Your task to perform on an android device: Go to Maps Image 0: 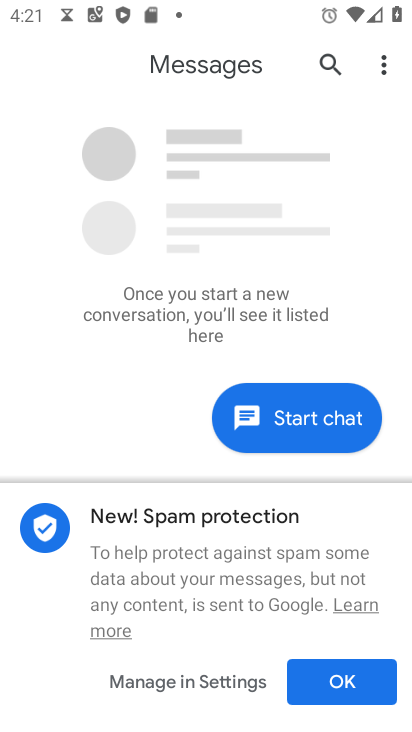
Step 0: press home button
Your task to perform on an android device: Go to Maps Image 1: 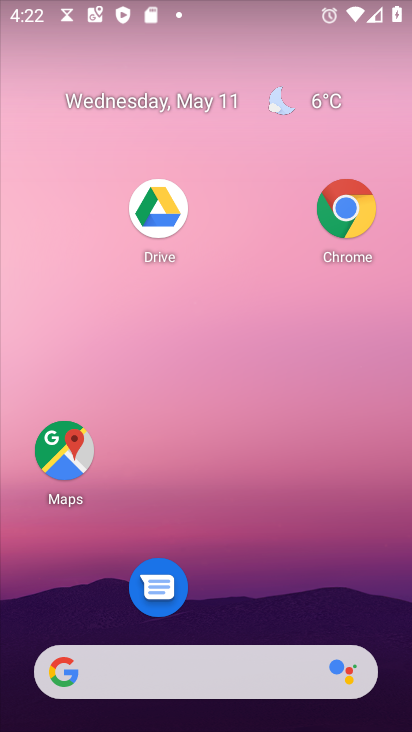
Step 1: click (58, 453)
Your task to perform on an android device: Go to Maps Image 2: 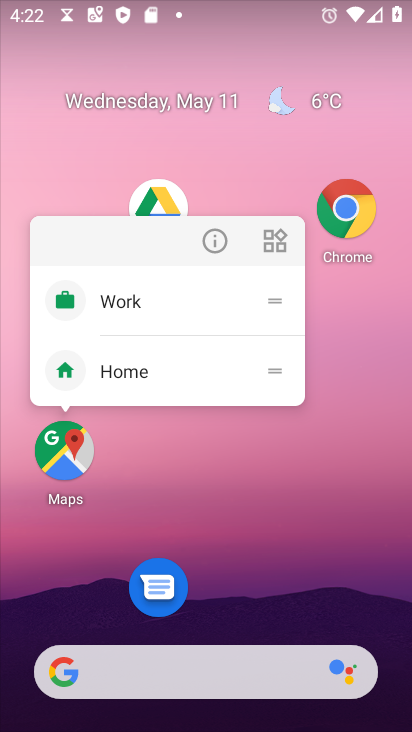
Step 2: click (60, 450)
Your task to perform on an android device: Go to Maps Image 3: 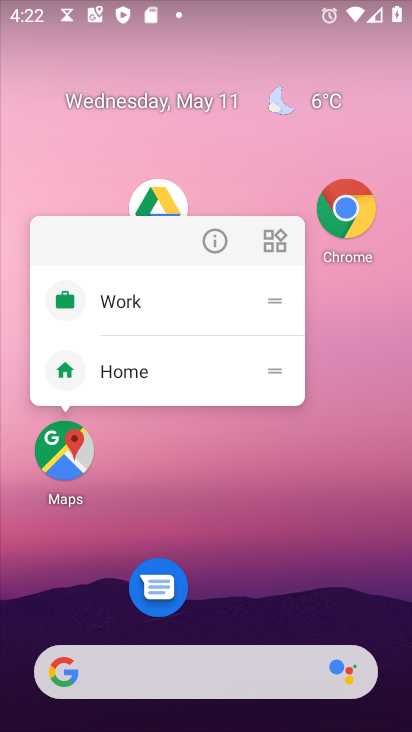
Step 3: click (61, 445)
Your task to perform on an android device: Go to Maps Image 4: 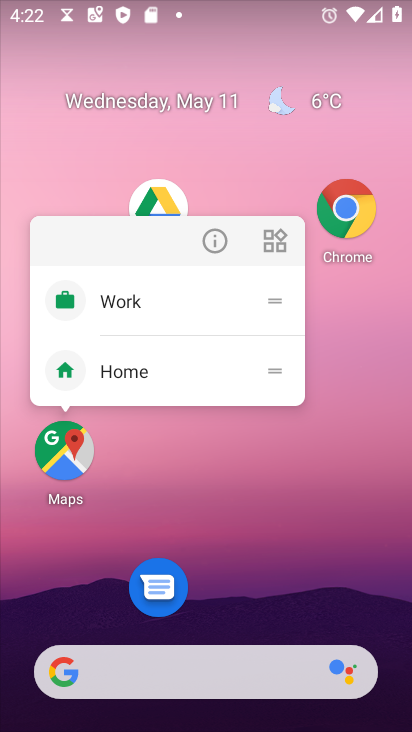
Step 4: click (62, 465)
Your task to perform on an android device: Go to Maps Image 5: 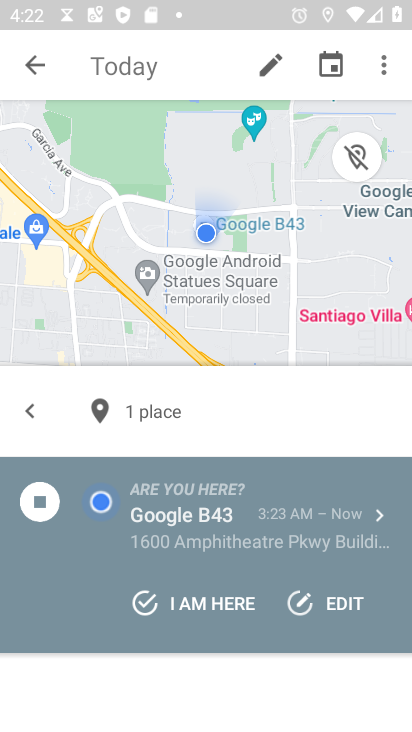
Step 5: task complete